Your task to perform on an android device: Open the map Image 0: 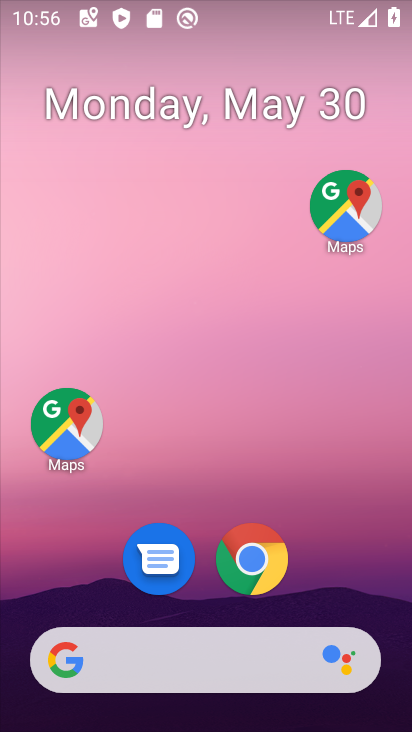
Step 0: click (57, 428)
Your task to perform on an android device: Open the map Image 1: 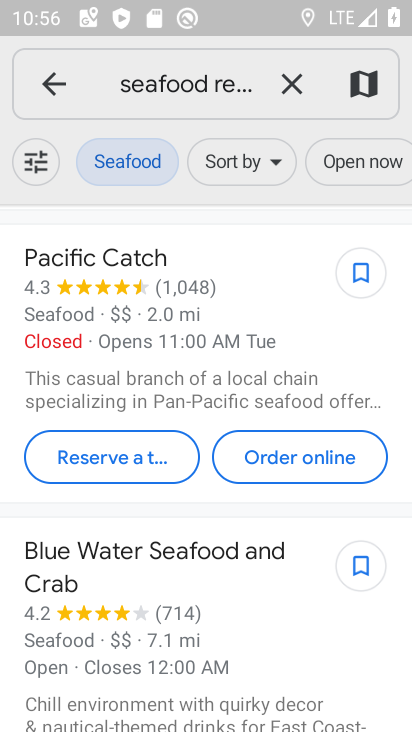
Step 1: task complete